Your task to perform on an android device: toggle improve location accuracy Image 0: 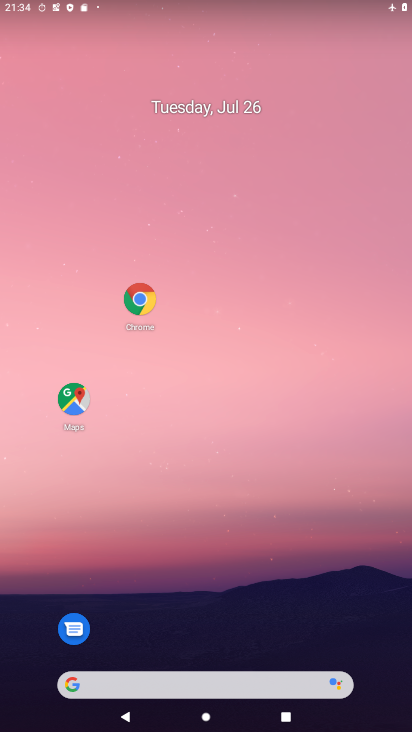
Step 0: click (190, 238)
Your task to perform on an android device: toggle improve location accuracy Image 1: 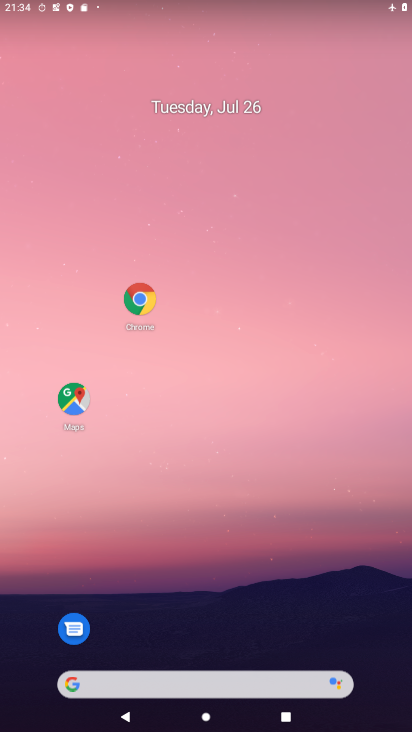
Step 1: drag from (192, 441) to (92, 33)
Your task to perform on an android device: toggle improve location accuracy Image 2: 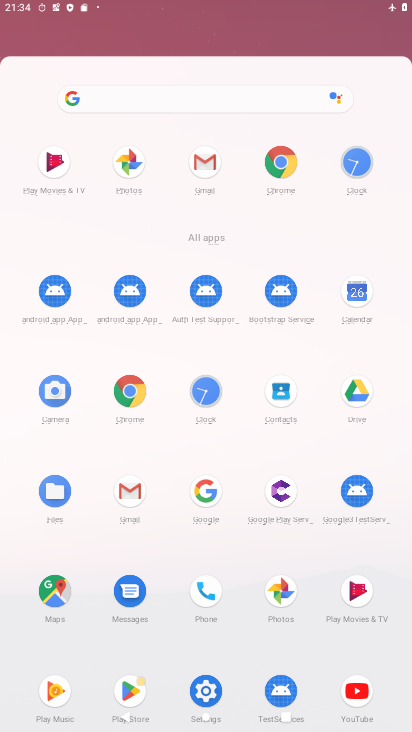
Step 2: drag from (195, 159) to (186, 99)
Your task to perform on an android device: toggle improve location accuracy Image 3: 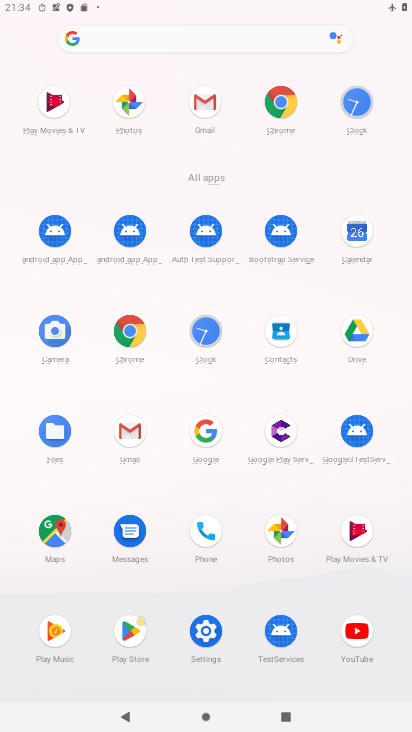
Step 3: click (154, 31)
Your task to perform on an android device: toggle improve location accuracy Image 4: 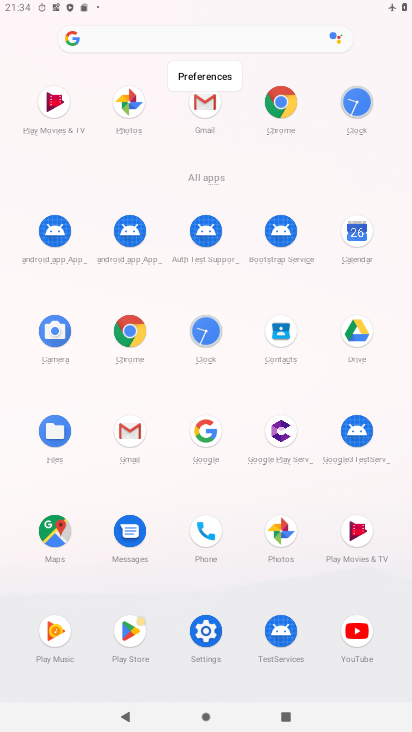
Step 4: click (209, 627)
Your task to perform on an android device: toggle improve location accuracy Image 5: 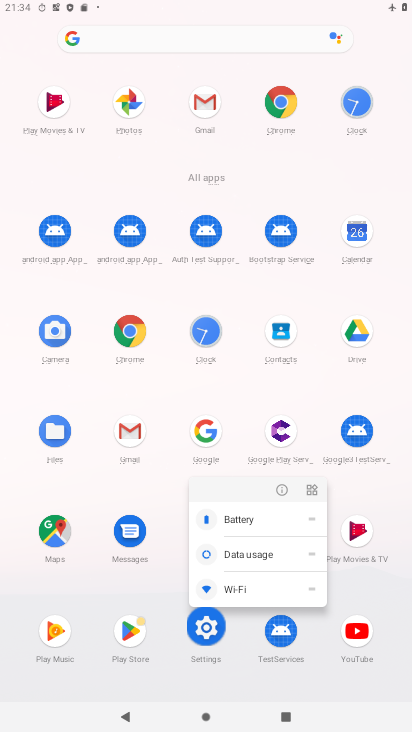
Step 5: click (209, 622)
Your task to perform on an android device: toggle improve location accuracy Image 6: 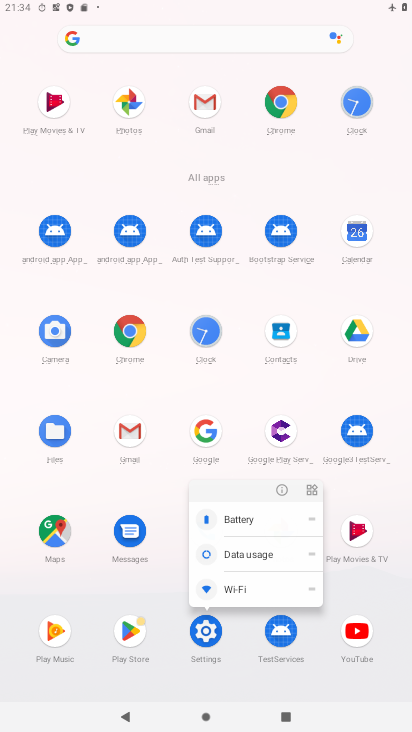
Step 6: click (209, 622)
Your task to perform on an android device: toggle improve location accuracy Image 7: 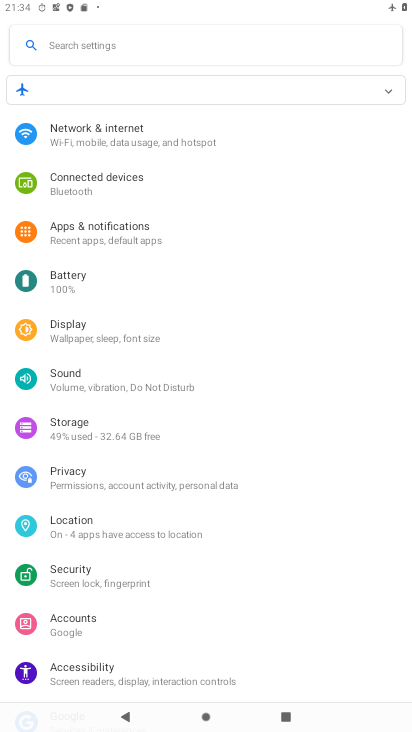
Step 7: click (211, 641)
Your task to perform on an android device: toggle improve location accuracy Image 8: 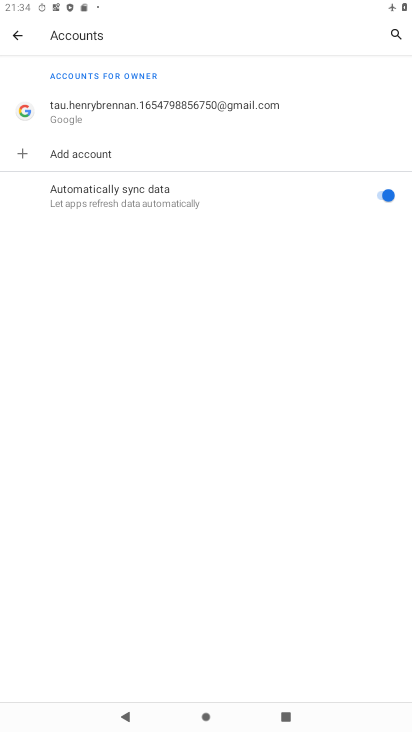
Step 8: click (16, 32)
Your task to perform on an android device: toggle improve location accuracy Image 9: 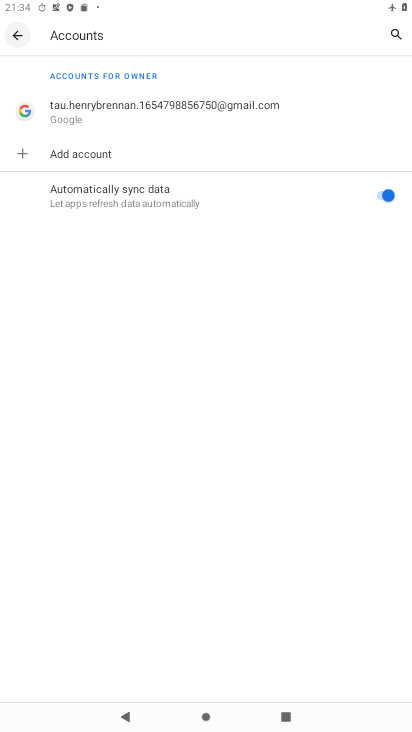
Step 9: click (40, 53)
Your task to perform on an android device: toggle improve location accuracy Image 10: 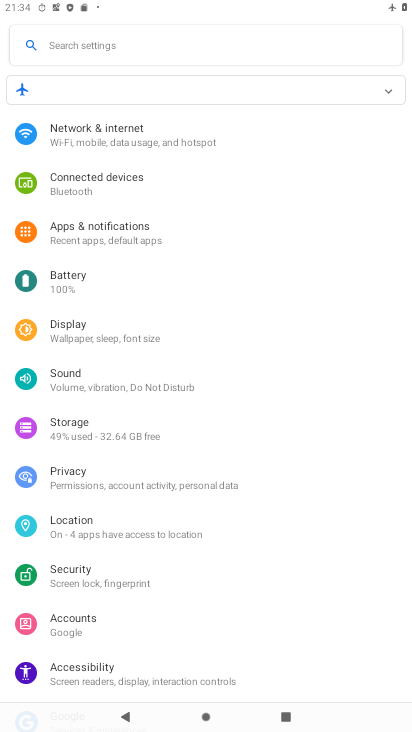
Step 10: click (102, 526)
Your task to perform on an android device: toggle improve location accuracy Image 11: 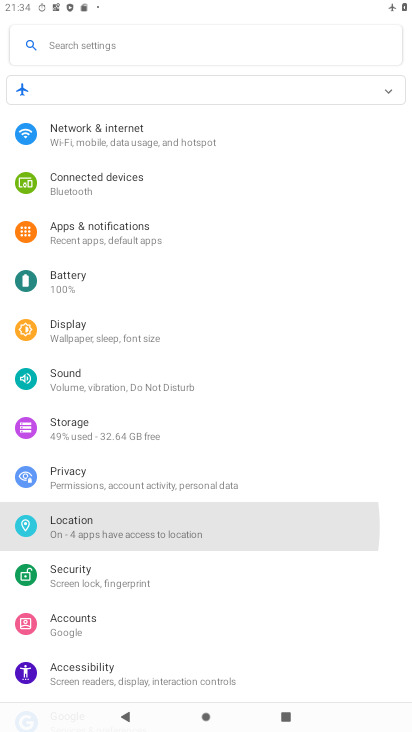
Step 11: click (100, 526)
Your task to perform on an android device: toggle improve location accuracy Image 12: 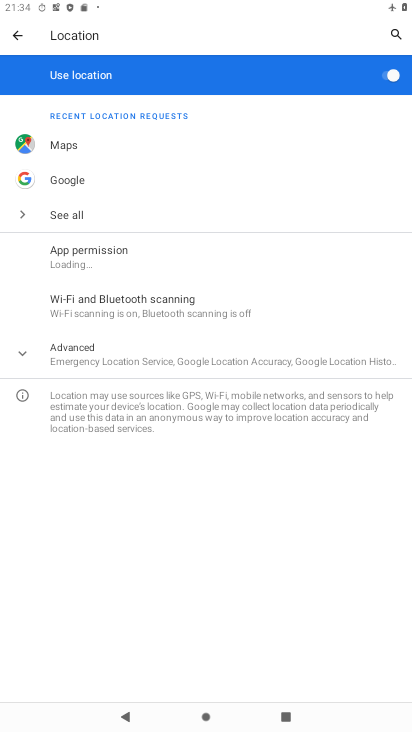
Step 12: click (141, 355)
Your task to perform on an android device: toggle improve location accuracy Image 13: 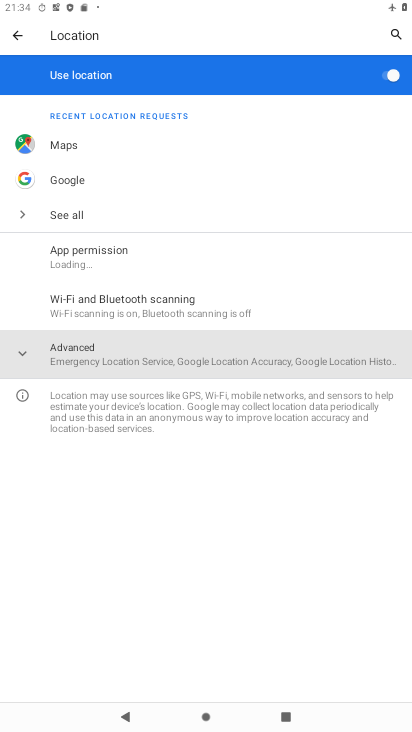
Step 13: click (140, 355)
Your task to perform on an android device: toggle improve location accuracy Image 14: 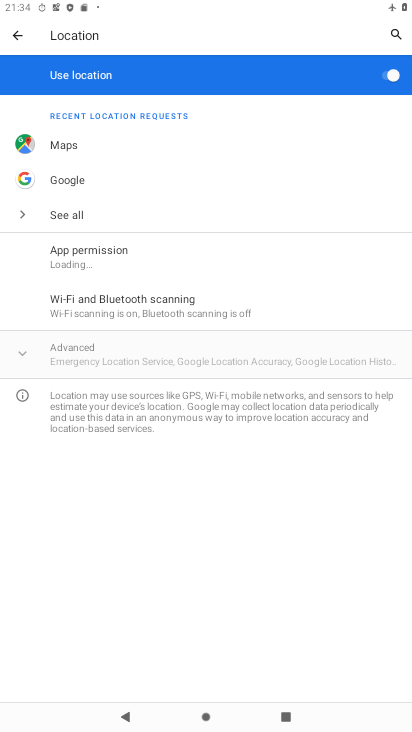
Step 14: click (140, 356)
Your task to perform on an android device: toggle improve location accuracy Image 15: 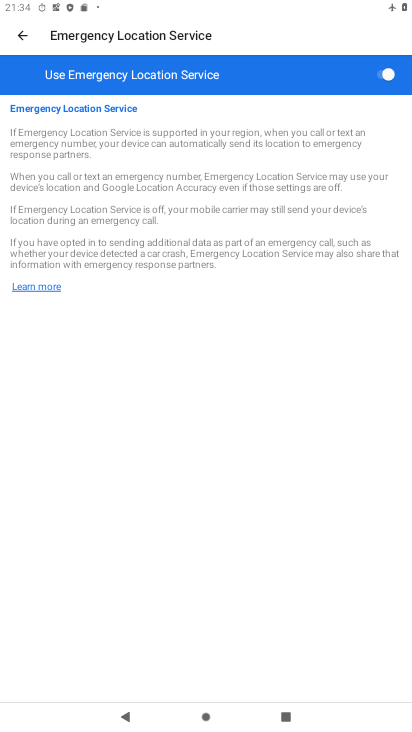
Step 15: click (21, 43)
Your task to perform on an android device: toggle improve location accuracy Image 16: 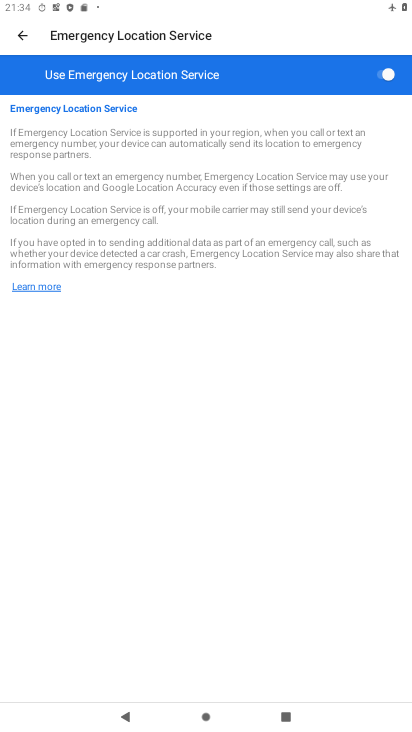
Step 16: click (29, 31)
Your task to perform on an android device: toggle improve location accuracy Image 17: 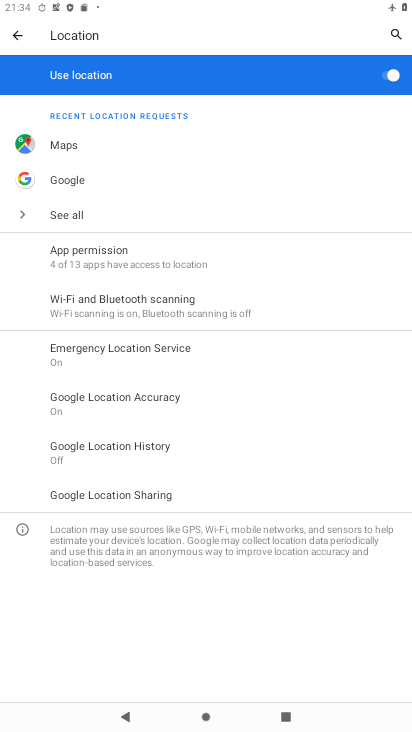
Step 17: click (110, 382)
Your task to perform on an android device: toggle improve location accuracy Image 18: 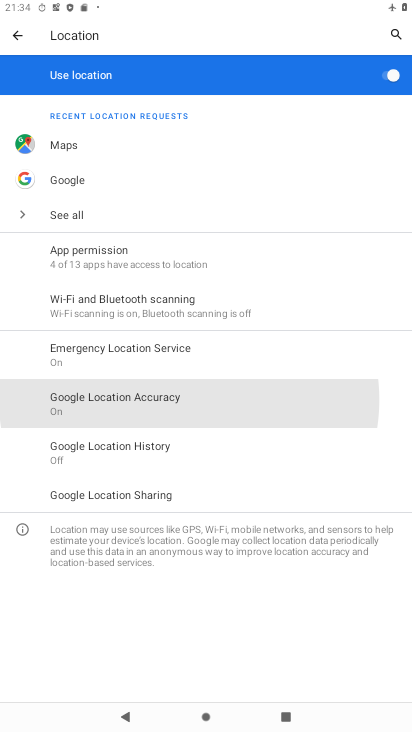
Step 18: click (114, 399)
Your task to perform on an android device: toggle improve location accuracy Image 19: 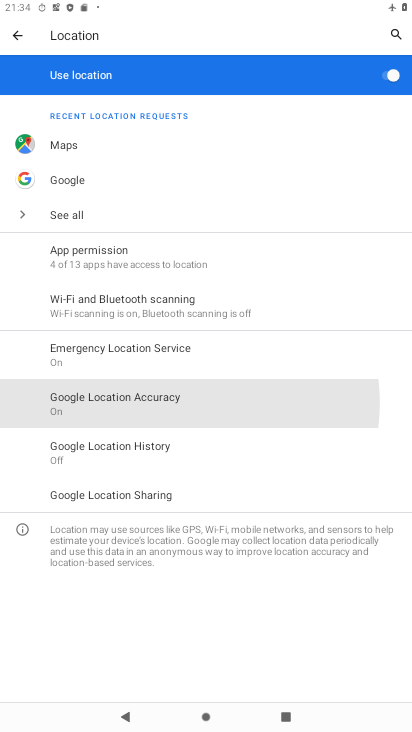
Step 19: click (119, 408)
Your task to perform on an android device: toggle improve location accuracy Image 20: 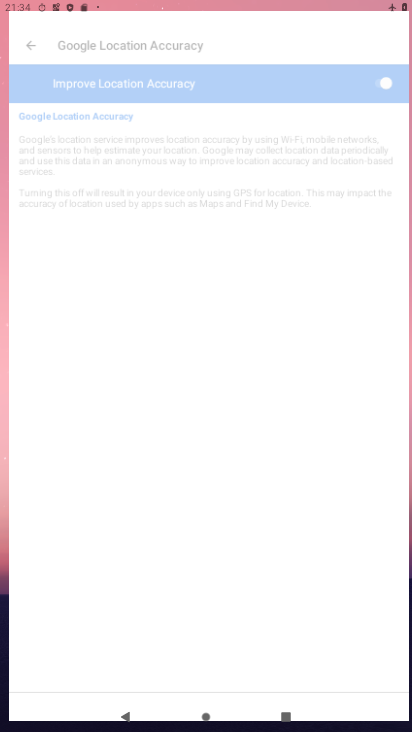
Step 20: click (125, 410)
Your task to perform on an android device: toggle improve location accuracy Image 21: 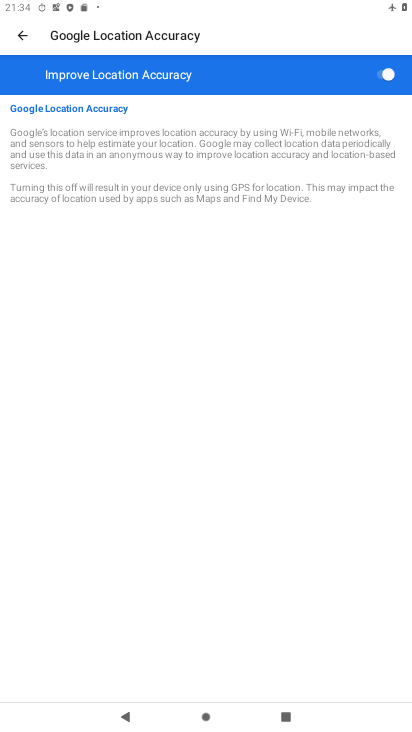
Step 21: click (376, 72)
Your task to perform on an android device: toggle improve location accuracy Image 22: 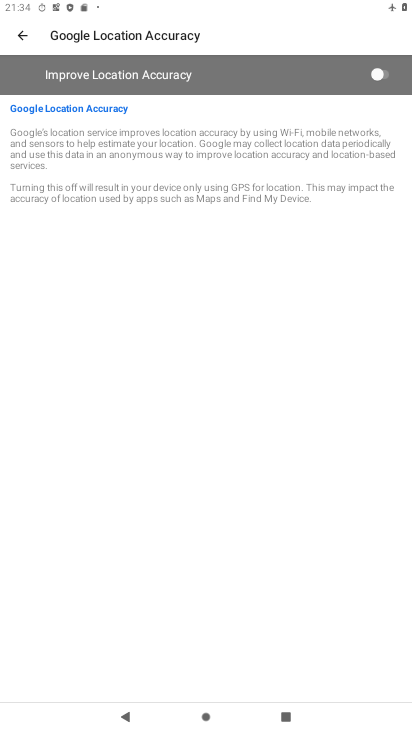
Step 22: task complete